Your task to perform on an android device: Open the phone app and click the voicemail tab. Image 0: 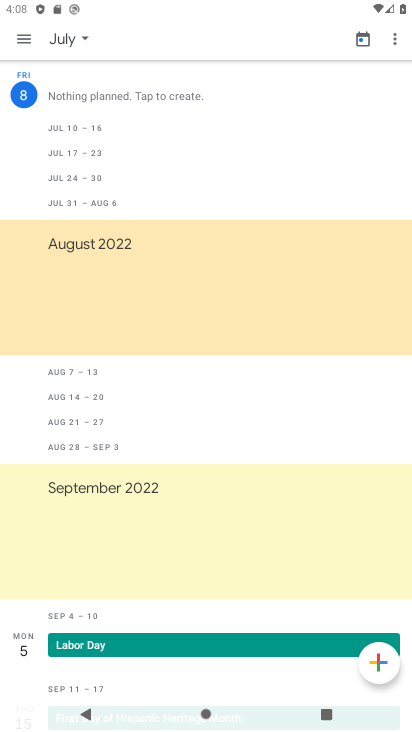
Step 0: press home button
Your task to perform on an android device: Open the phone app and click the voicemail tab. Image 1: 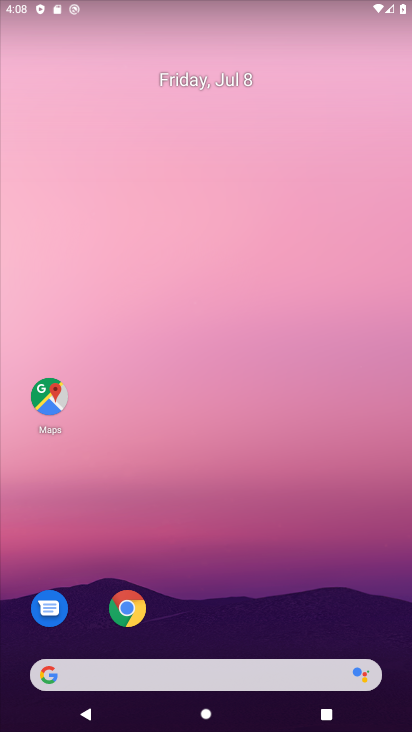
Step 1: drag from (272, 599) to (403, 8)
Your task to perform on an android device: Open the phone app and click the voicemail tab. Image 2: 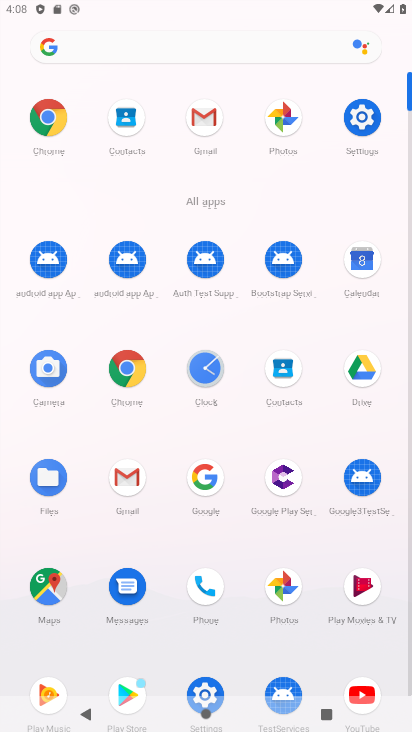
Step 2: click (213, 580)
Your task to perform on an android device: Open the phone app and click the voicemail tab. Image 3: 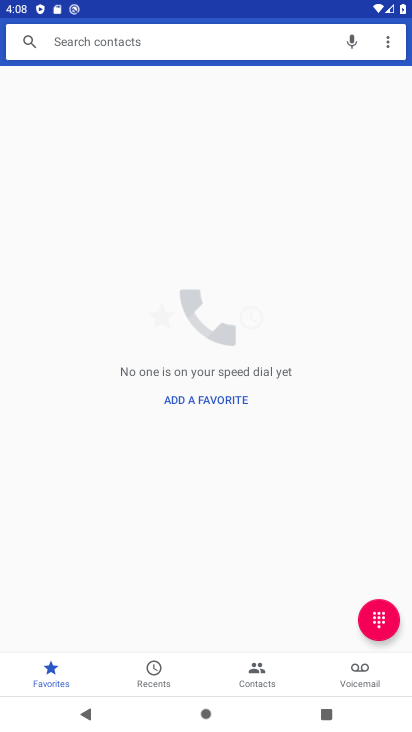
Step 3: click (363, 664)
Your task to perform on an android device: Open the phone app and click the voicemail tab. Image 4: 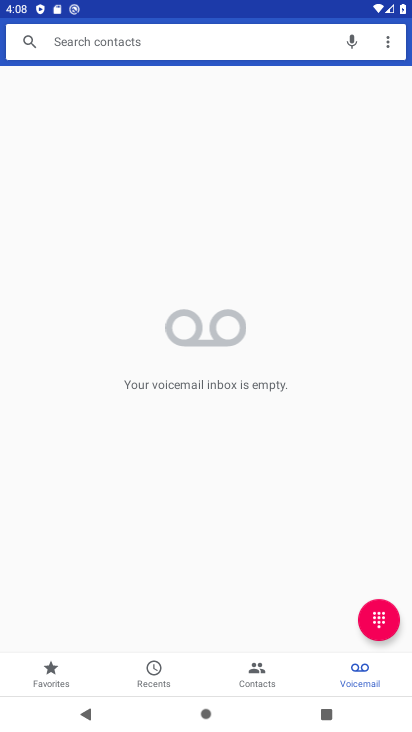
Step 4: task complete